Your task to perform on an android device: Toggle the flashlight Image 0: 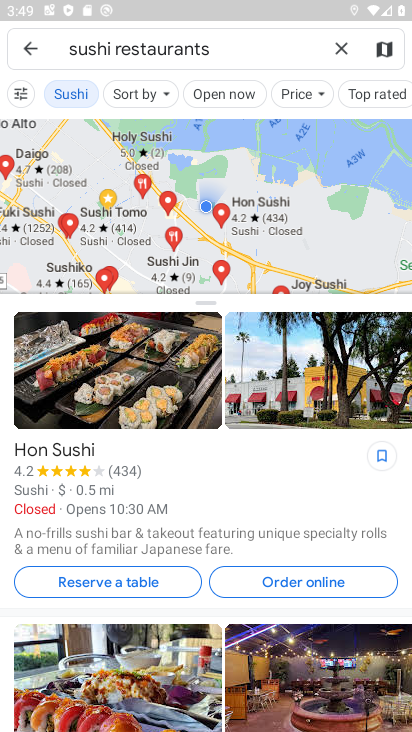
Step 0: press home button
Your task to perform on an android device: Toggle the flashlight Image 1: 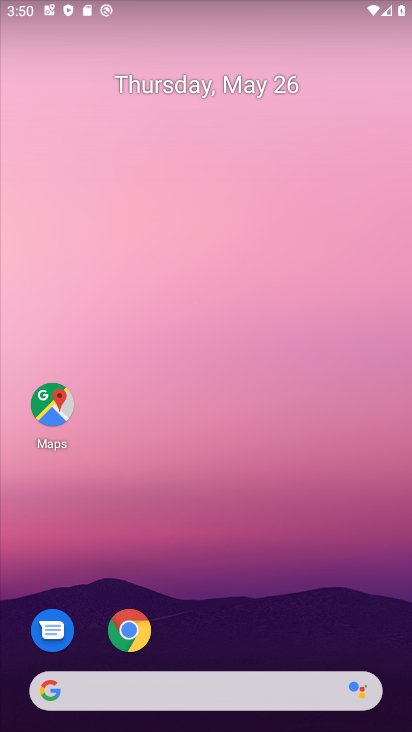
Step 1: drag from (257, 588) to (283, 145)
Your task to perform on an android device: Toggle the flashlight Image 2: 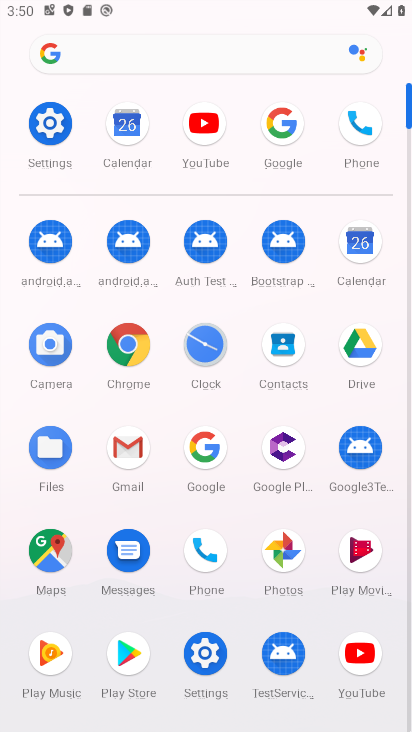
Step 2: click (203, 649)
Your task to perform on an android device: Toggle the flashlight Image 3: 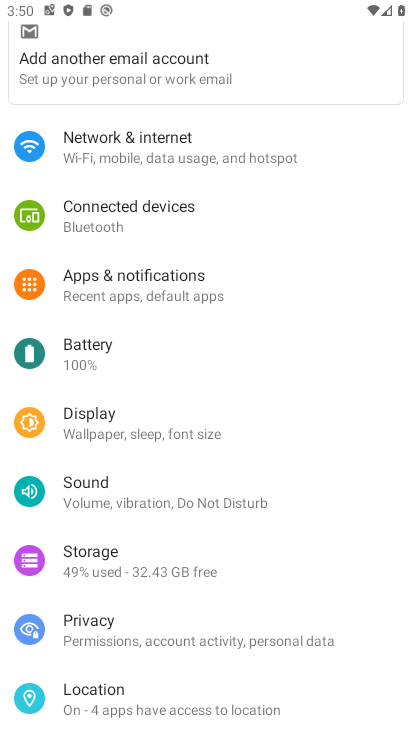
Step 3: click (163, 431)
Your task to perform on an android device: Toggle the flashlight Image 4: 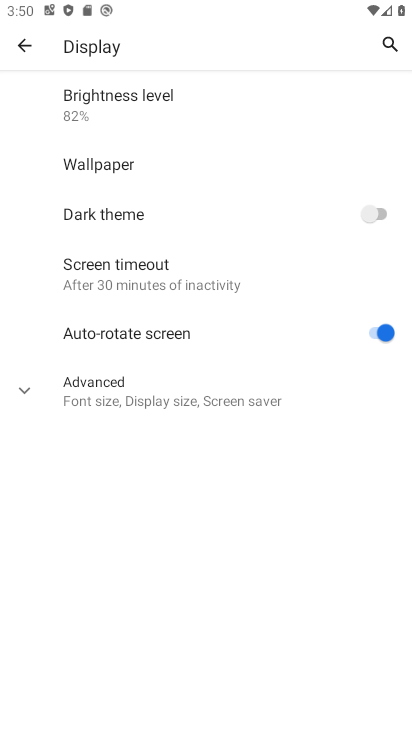
Step 4: click (189, 275)
Your task to perform on an android device: Toggle the flashlight Image 5: 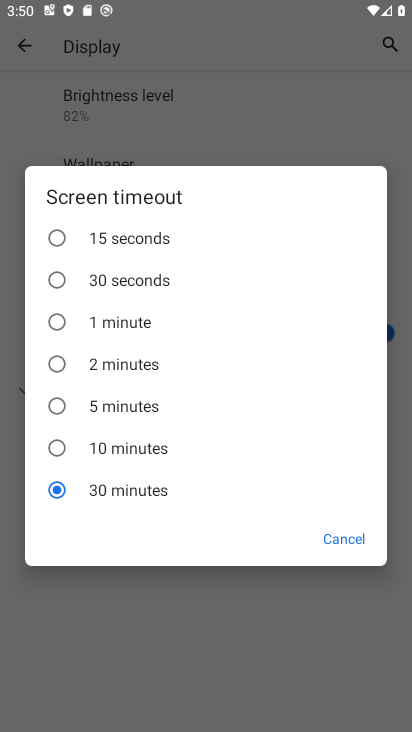
Step 5: click (362, 543)
Your task to perform on an android device: Toggle the flashlight Image 6: 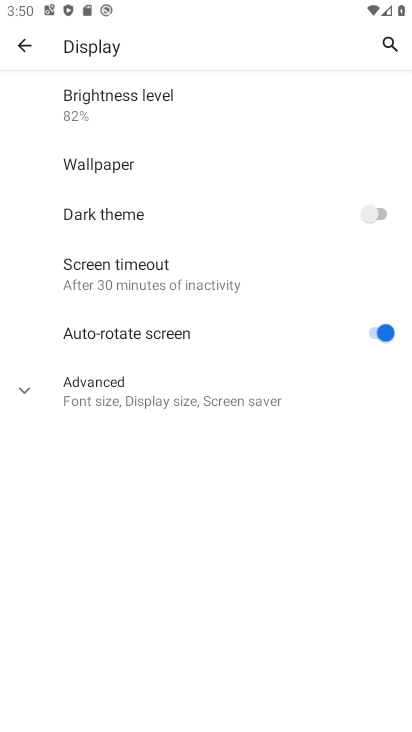
Step 6: click (217, 404)
Your task to perform on an android device: Toggle the flashlight Image 7: 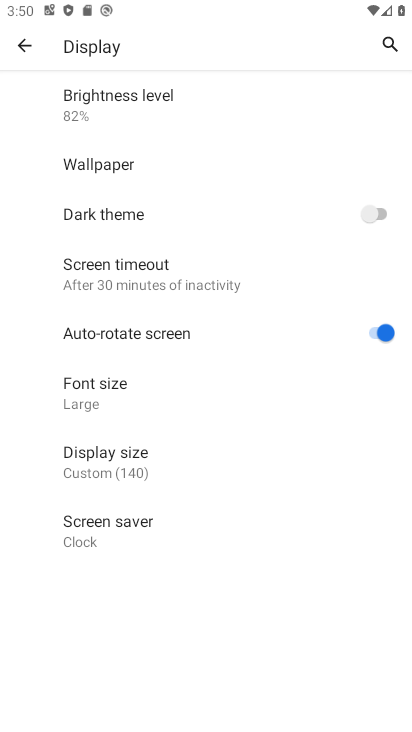
Step 7: drag from (125, 498) to (195, 325)
Your task to perform on an android device: Toggle the flashlight Image 8: 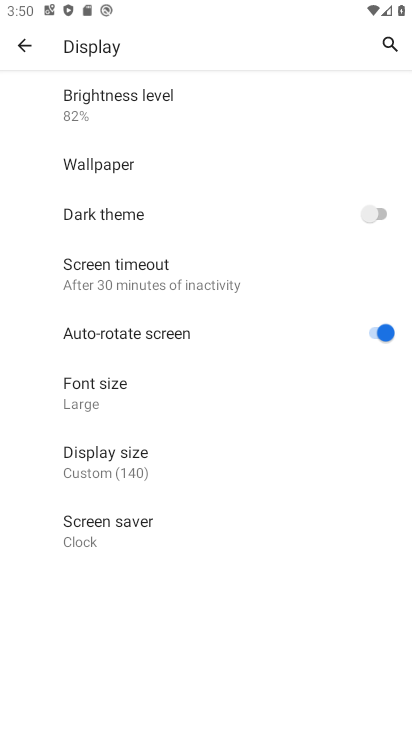
Step 8: press back button
Your task to perform on an android device: Toggle the flashlight Image 9: 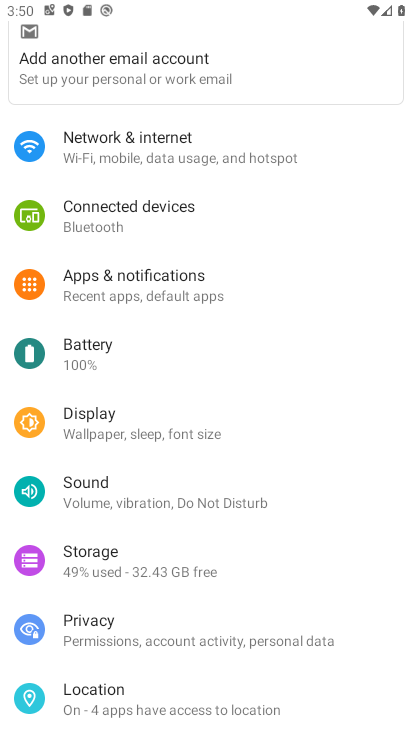
Step 9: drag from (187, 526) to (234, 457)
Your task to perform on an android device: Toggle the flashlight Image 10: 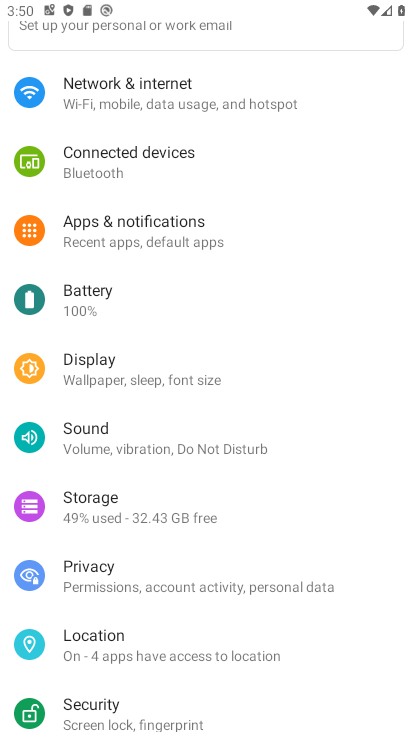
Step 10: drag from (155, 542) to (205, 456)
Your task to perform on an android device: Toggle the flashlight Image 11: 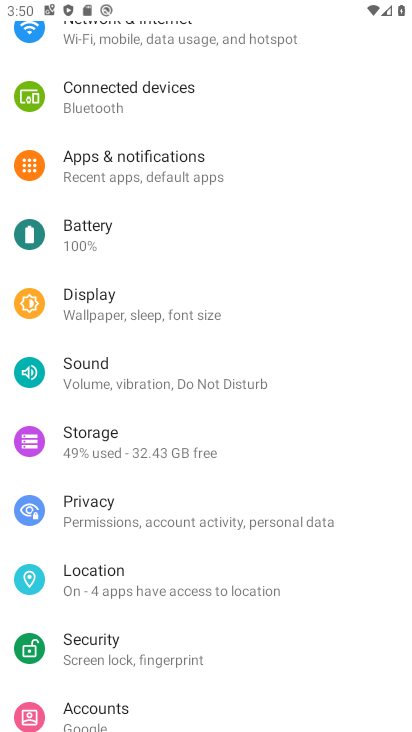
Step 11: drag from (143, 557) to (200, 469)
Your task to perform on an android device: Toggle the flashlight Image 12: 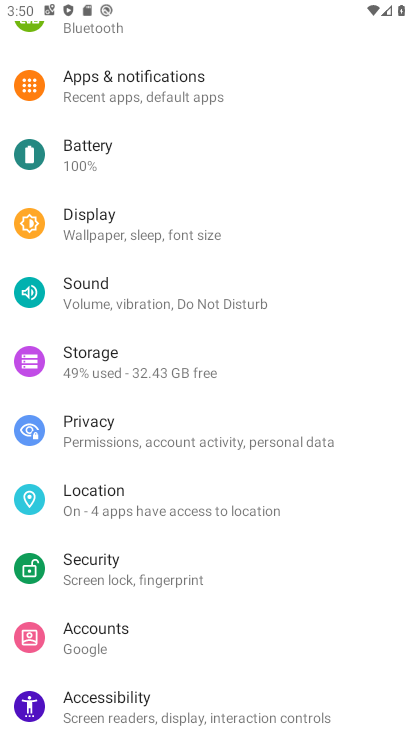
Step 12: drag from (141, 537) to (225, 431)
Your task to perform on an android device: Toggle the flashlight Image 13: 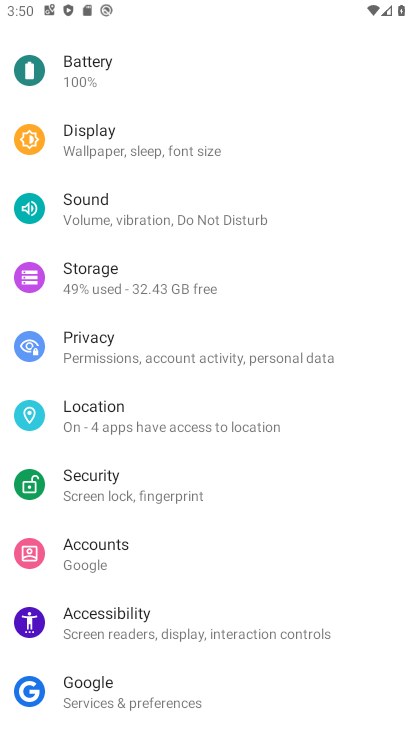
Step 13: drag from (133, 526) to (195, 452)
Your task to perform on an android device: Toggle the flashlight Image 14: 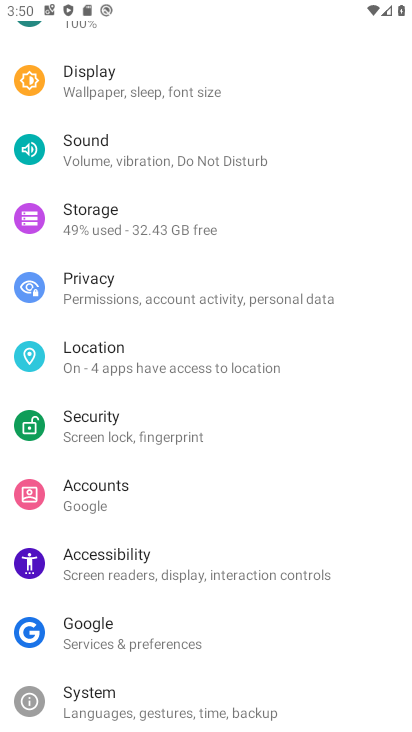
Step 14: drag from (116, 538) to (185, 433)
Your task to perform on an android device: Toggle the flashlight Image 15: 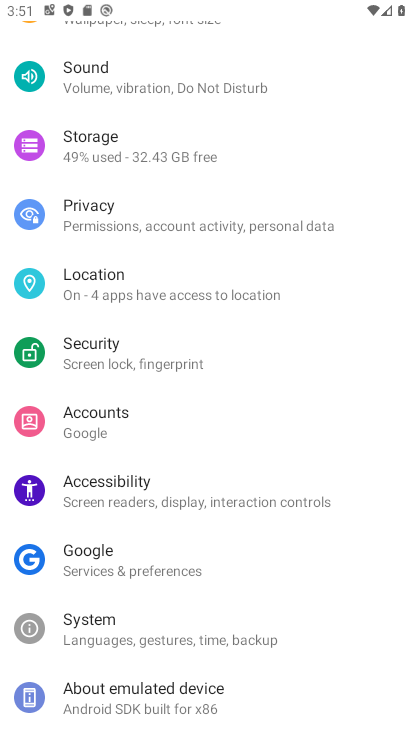
Step 15: click (115, 476)
Your task to perform on an android device: Toggle the flashlight Image 16: 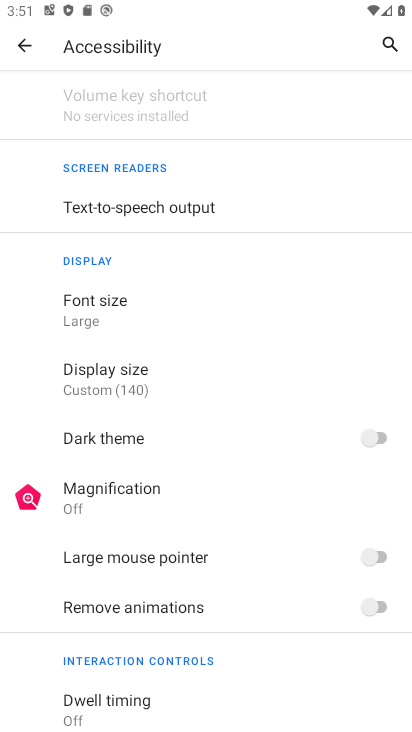
Step 16: task complete